Your task to perform on an android device: check android version Image 0: 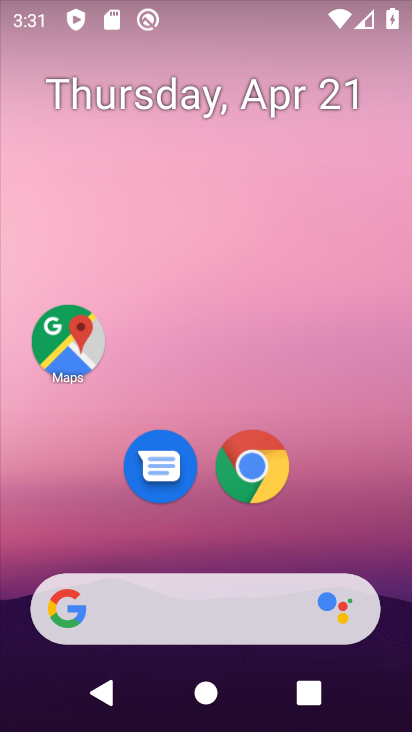
Step 0: drag from (201, 519) to (204, 145)
Your task to perform on an android device: check android version Image 1: 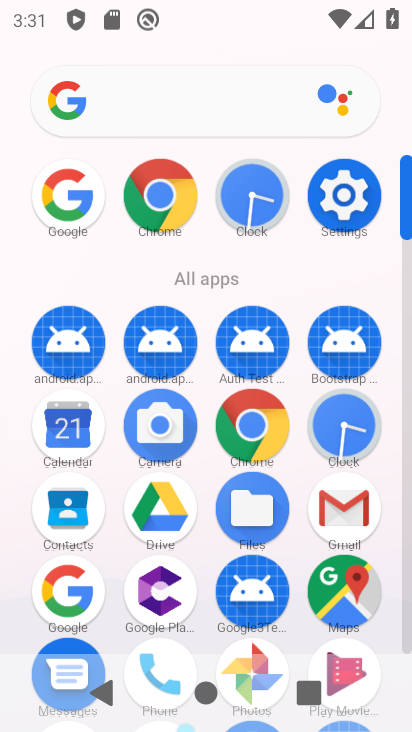
Step 1: click (338, 216)
Your task to perform on an android device: check android version Image 2: 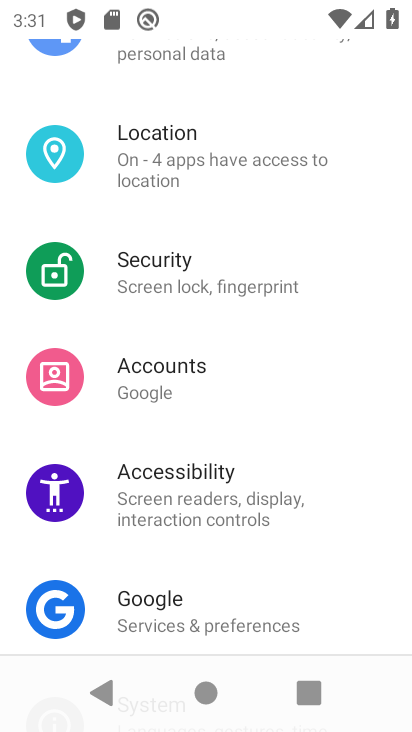
Step 2: drag from (266, 604) to (260, 221)
Your task to perform on an android device: check android version Image 3: 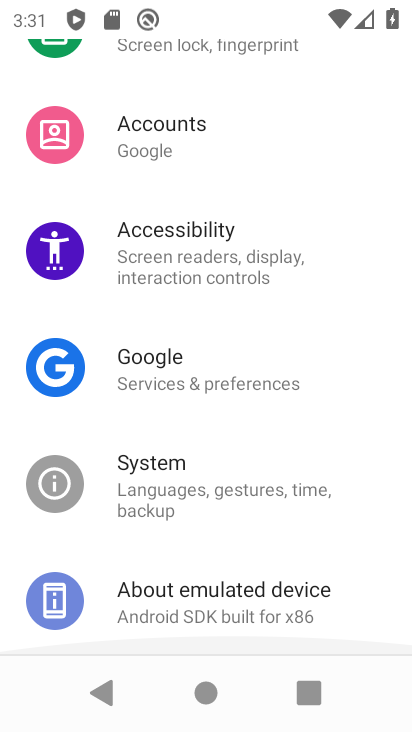
Step 3: drag from (242, 581) to (240, 267)
Your task to perform on an android device: check android version Image 4: 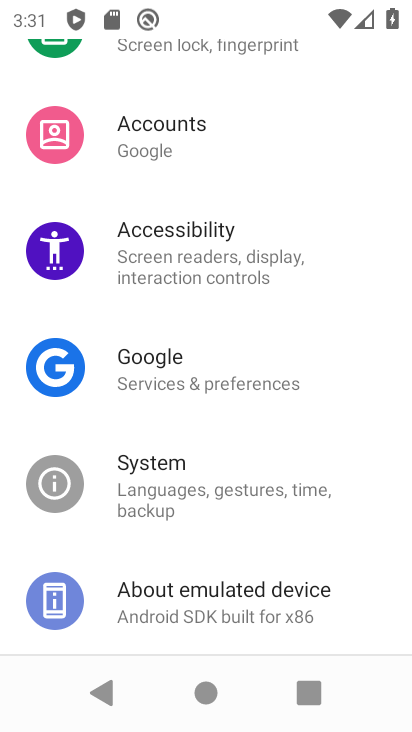
Step 4: click (226, 593)
Your task to perform on an android device: check android version Image 5: 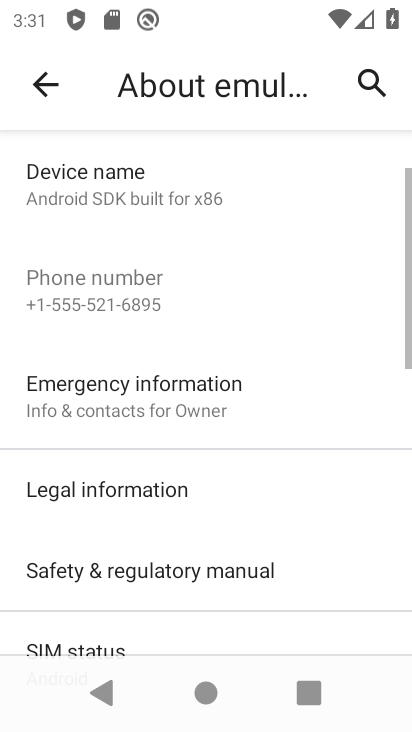
Step 5: drag from (192, 610) to (249, 225)
Your task to perform on an android device: check android version Image 6: 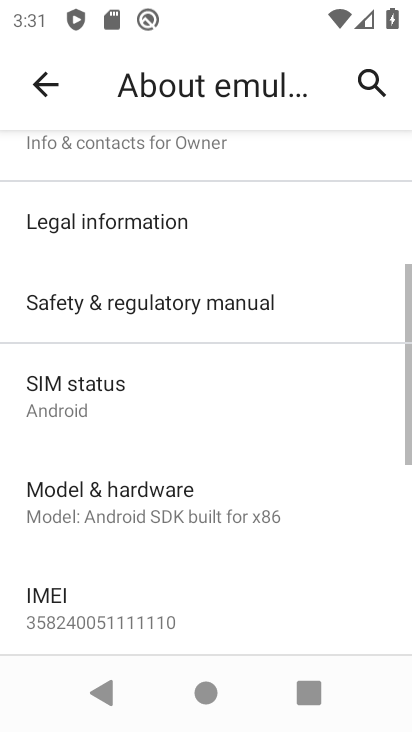
Step 6: drag from (255, 520) to (268, 178)
Your task to perform on an android device: check android version Image 7: 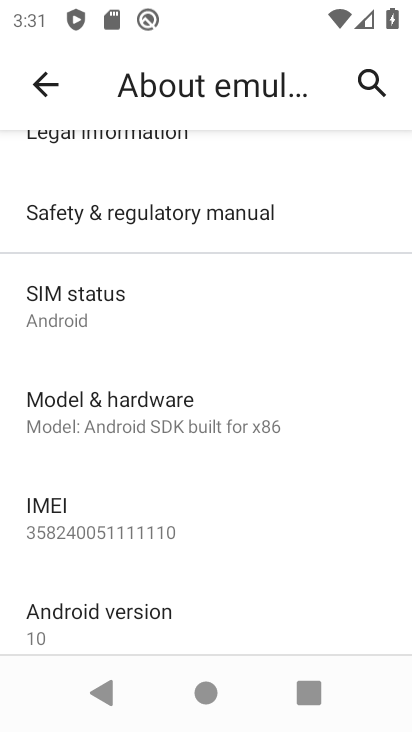
Step 7: drag from (233, 569) to (238, 365)
Your task to perform on an android device: check android version Image 8: 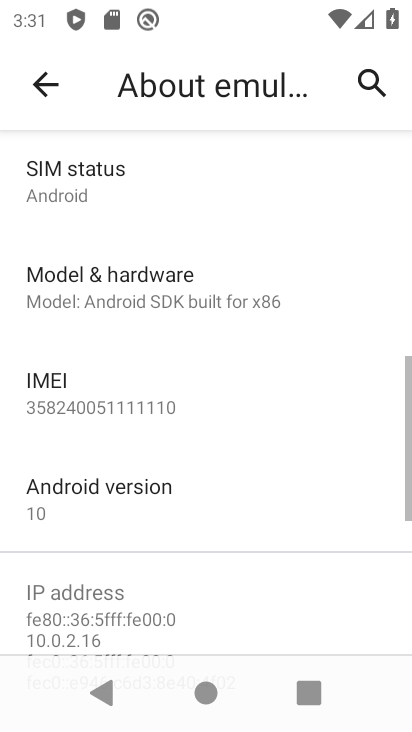
Step 8: click (164, 496)
Your task to perform on an android device: check android version Image 9: 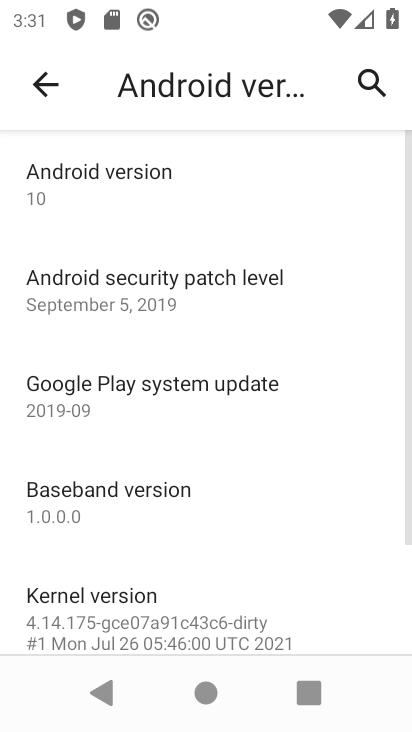
Step 9: click (123, 202)
Your task to perform on an android device: check android version Image 10: 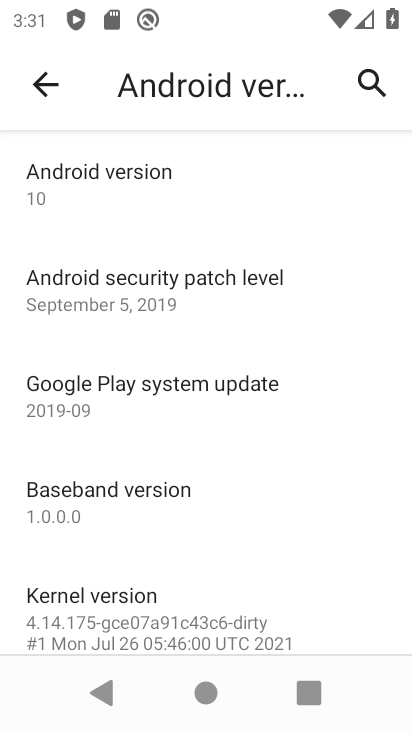
Step 10: task complete